Your task to perform on an android device: all mails in gmail Image 0: 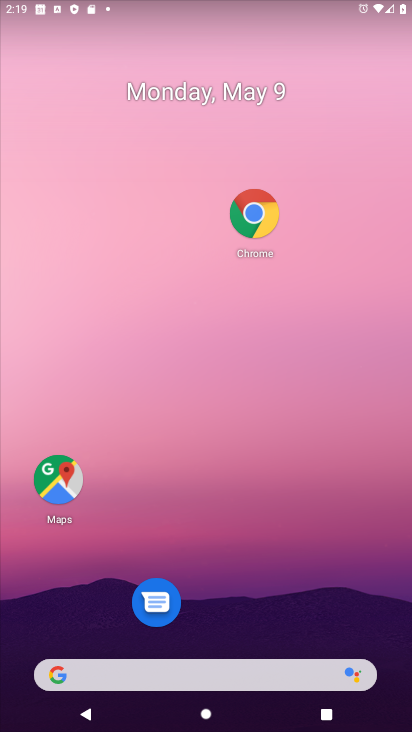
Step 0: drag from (296, 606) to (234, 146)
Your task to perform on an android device: all mails in gmail Image 1: 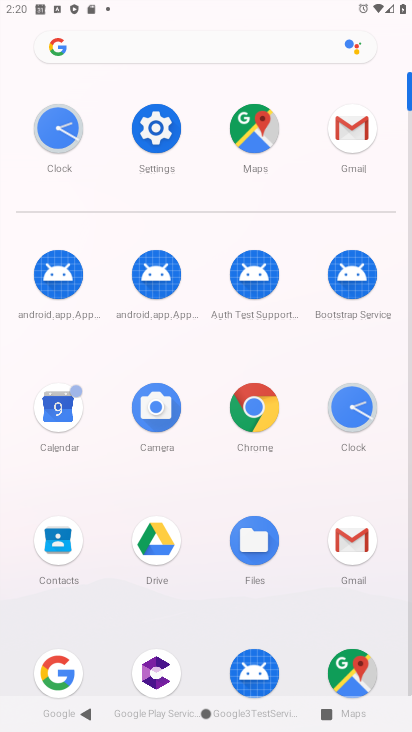
Step 1: click (349, 566)
Your task to perform on an android device: all mails in gmail Image 2: 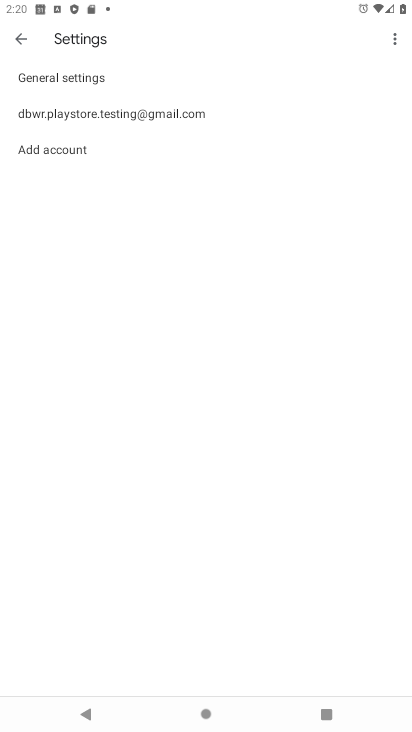
Step 2: click (207, 74)
Your task to perform on an android device: all mails in gmail Image 3: 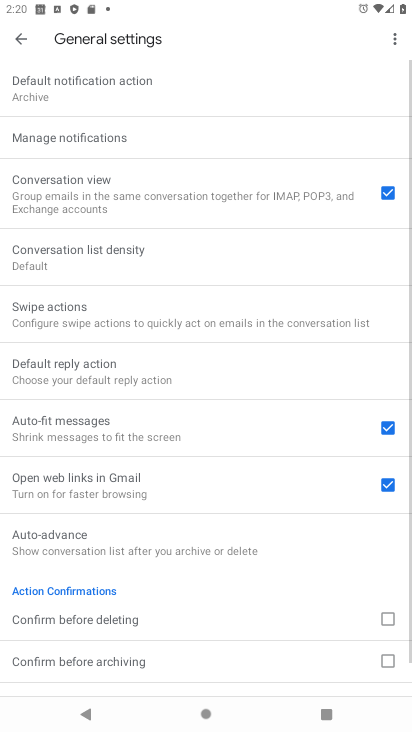
Step 3: click (29, 53)
Your task to perform on an android device: all mails in gmail Image 4: 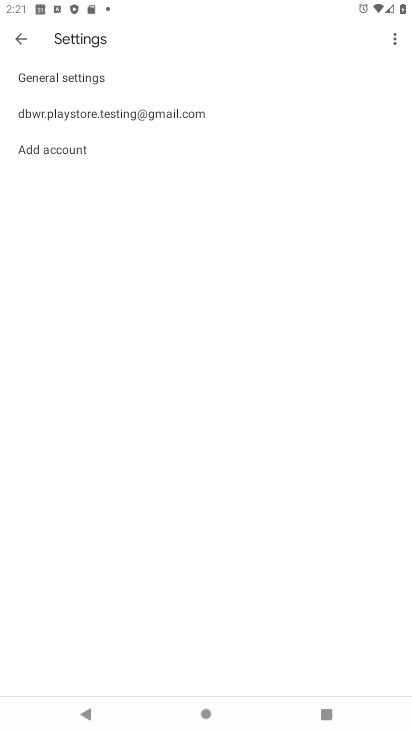
Step 4: press back button
Your task to perform on an android device: all mails in gmail Image 5: 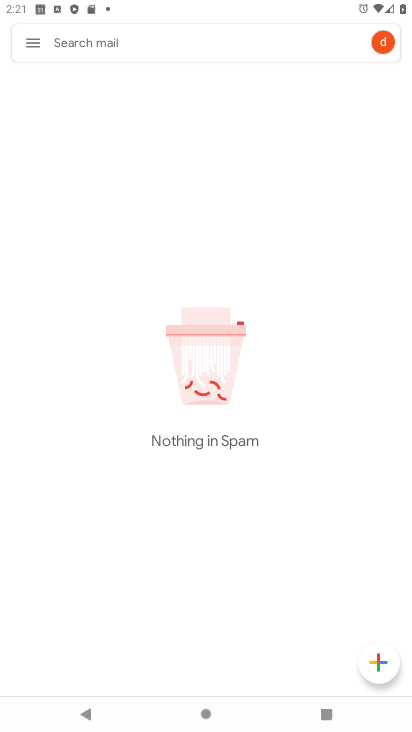
Step 5: click (78, 40)
Your task to perform on an android device: all mails in gmail Image 6: 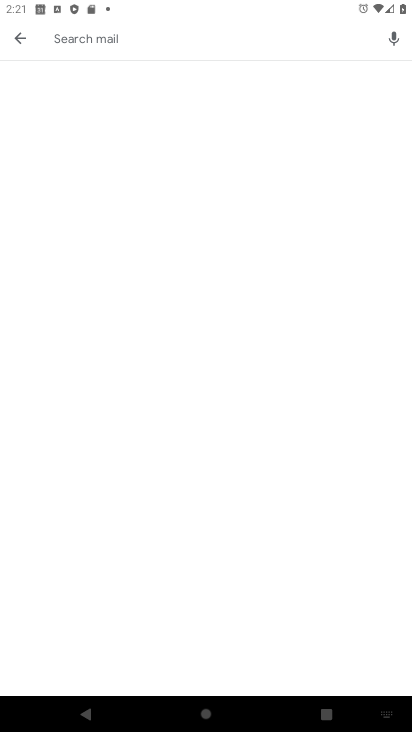
Step 6: click (28, 40)
Your task to perform on an android device: all mails in gmail Image 7: 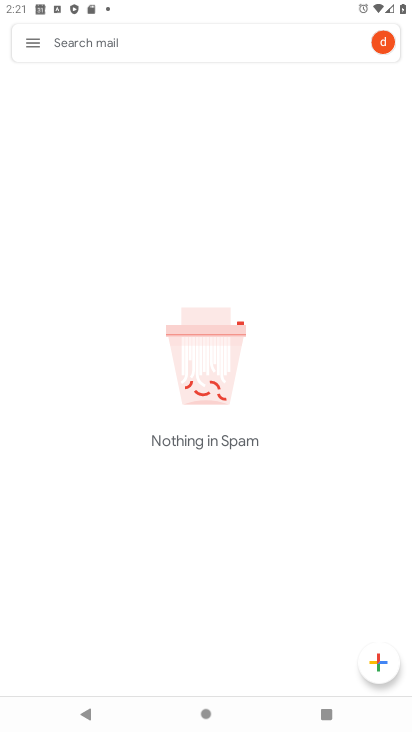
Step 7: click (28, 40)
Your task to perform on an android device: all mails in gmail Image 8: 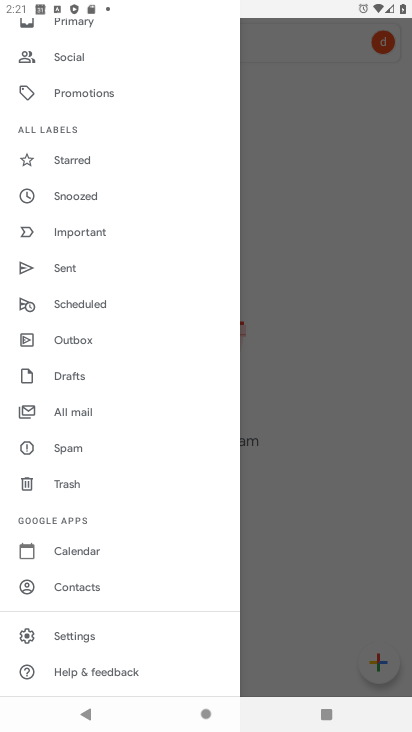
Step 8: click (65, 411)
Your task to perform on an android device: all mails in gmail Image 9: 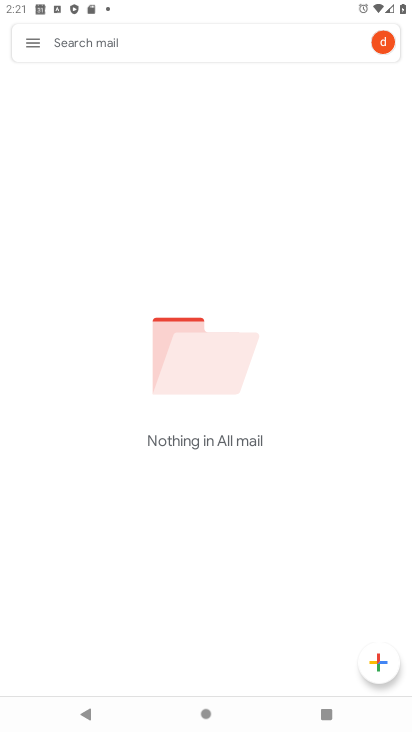
Step 9: task complete